Your task to perform on an android device: Open location settings Image 0: 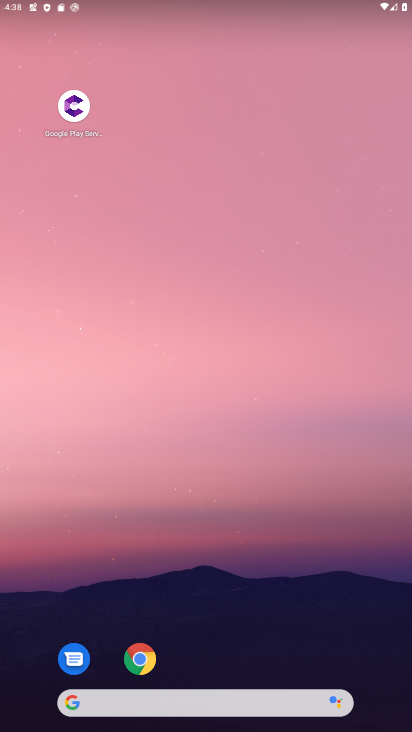
Step 0: drag from (191, 710) to (307, 28)
Your task to perform on an android device: Open location settings Image 1: 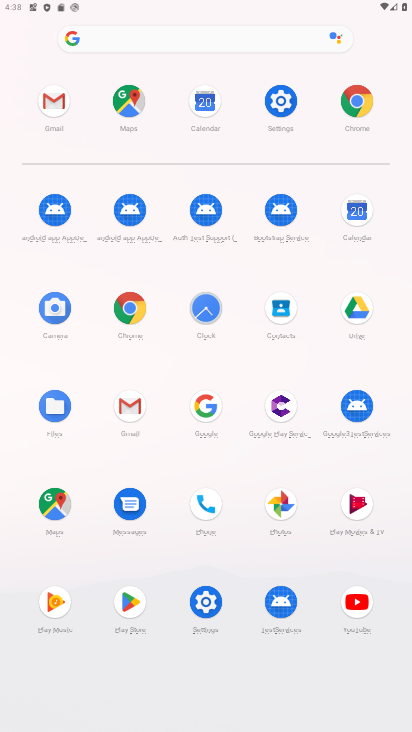
Step 1: click (295, 93)
Your task to perform on an android device: Open location settings Image 2: 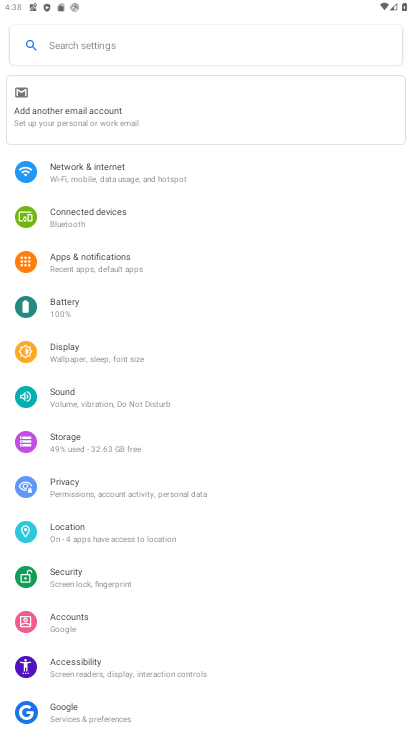
Step 2: click (74, 533)
Your task to perform on an android device: Open location settings Image 3: 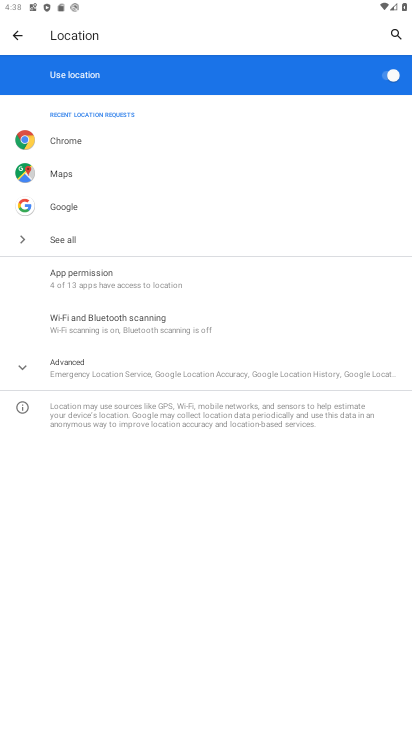
Step 3: task complete